Your task to perform on an android device: toggle airplane mode Image 0: 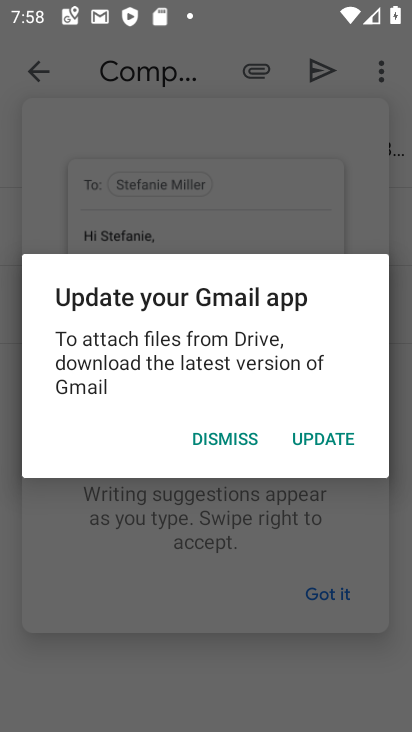
Step 0: press home button
Your task to perform on an android device: toggle airplane mode Image 1: 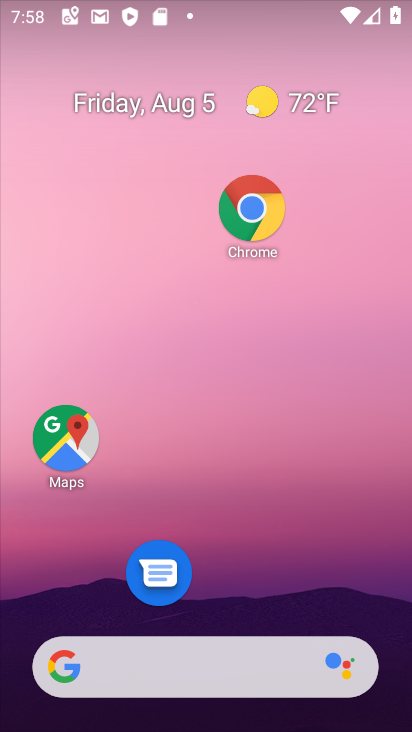
Step 1: drag from (283, 558) to (189, 1)
Your task to perform on an android device: toggle airplane mode Image 2: 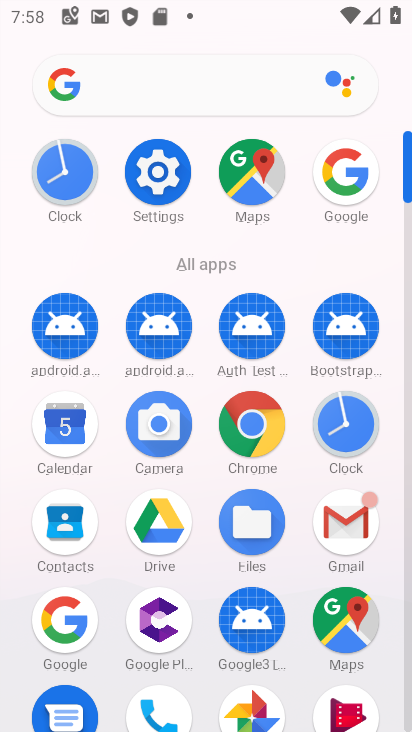
Step 2: click (139, 178)
Your task to perform on an android device: toggle airplane mode Image 3: 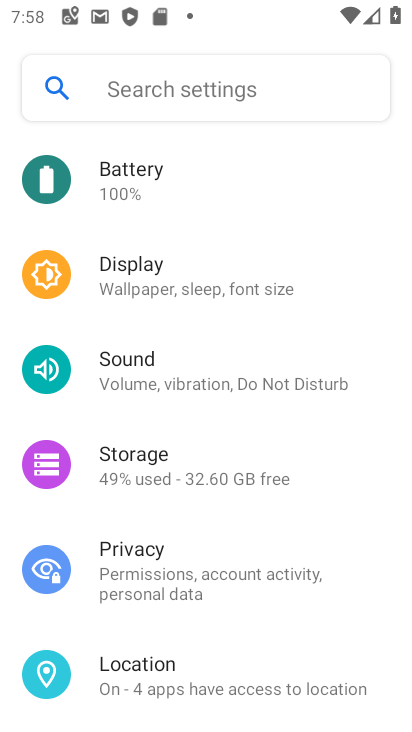
Step 3: drag from (163, 206) to (273, 624)
Your task to perform on an android device: toggle airplane mode Image 4: 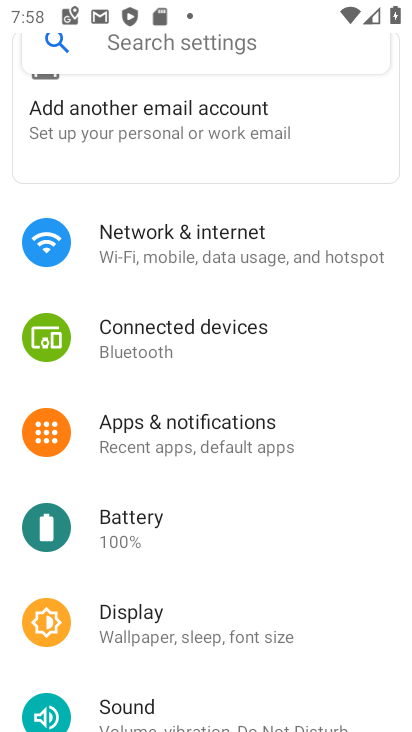
Step 4: drag from (236, 237) to (265, 613)
Your task to perform on an android device: toggle airplane mode Image 5: 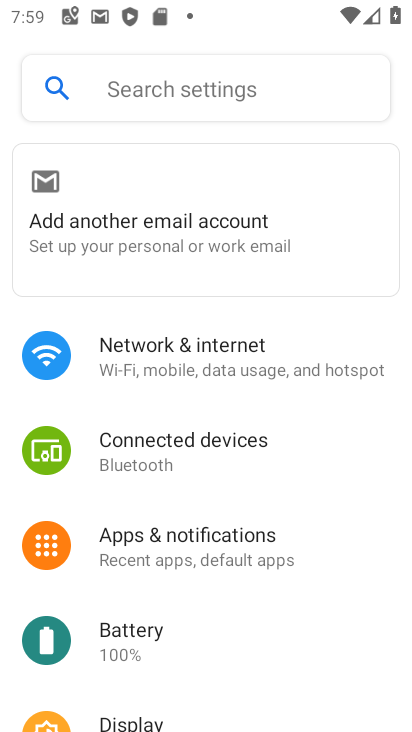
Step 5: click (168, 362)
Your task to perform on an android device: toggle airplane mode Image 6: 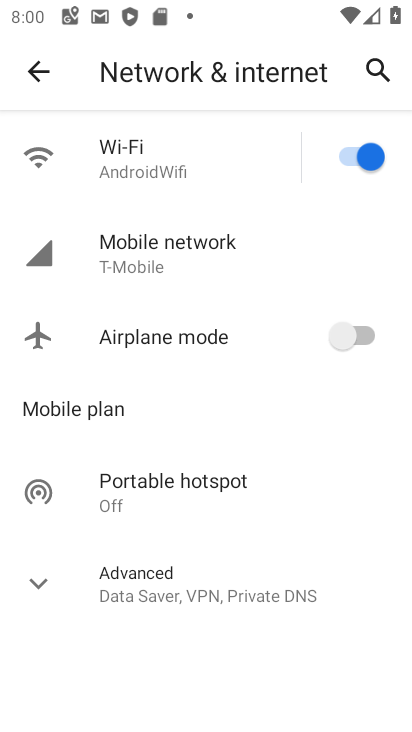
Step 6: click (364, 324)
Your task to perform on an android device: toggle airplane mode Image 7: 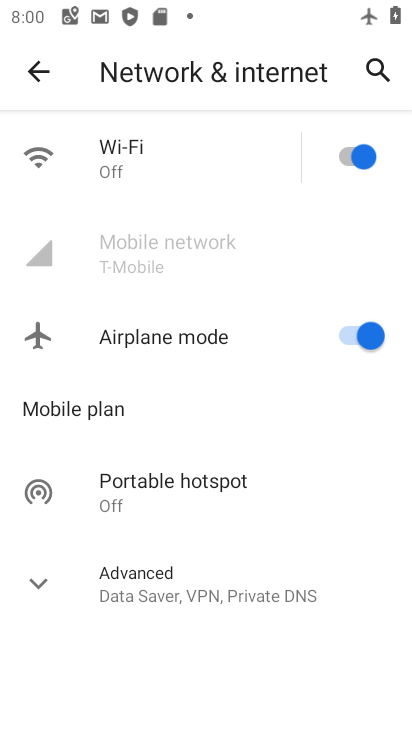
Step 7: task complete